Your task to perform on an android device: What's the weather? Image 0: 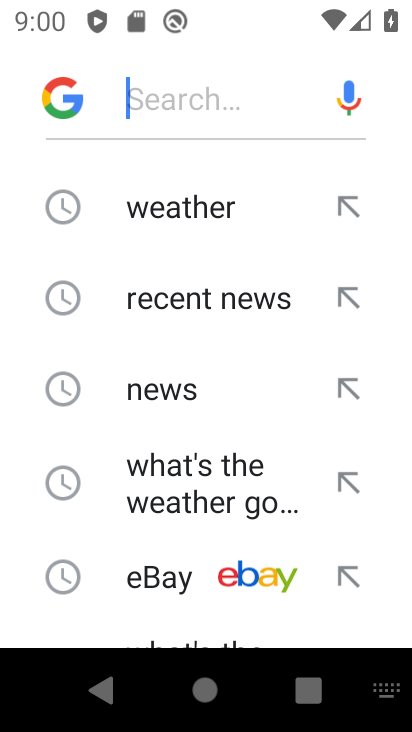
Step 0: click (192, 214)
Your task to perform on an android device: What's the weather? Image 1: 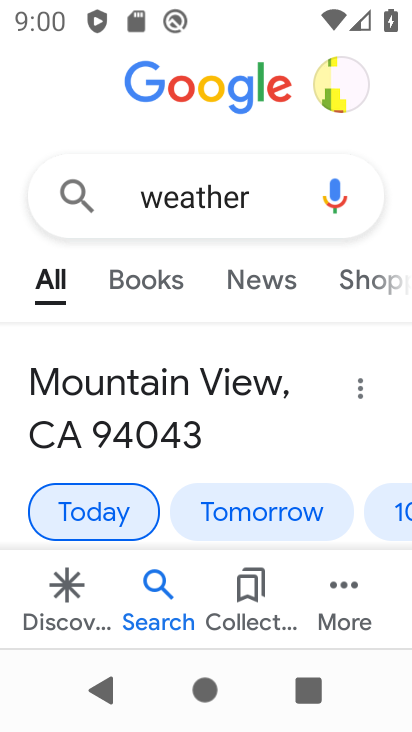
Step 1: task complete